Your task to perform on an android device: Open Google Chrome and click the shortcut for Amazon.com Image 0: 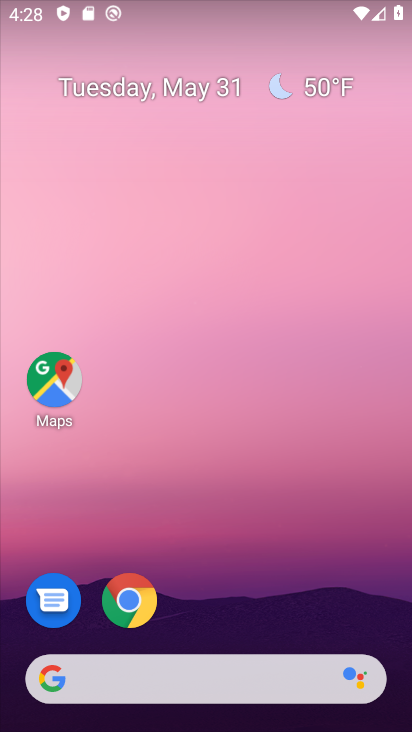
Step 0: click (129, 601)
Your task to perform on an android device: Open Google Chrome and click the shortcut for Amazon.com Image 1: 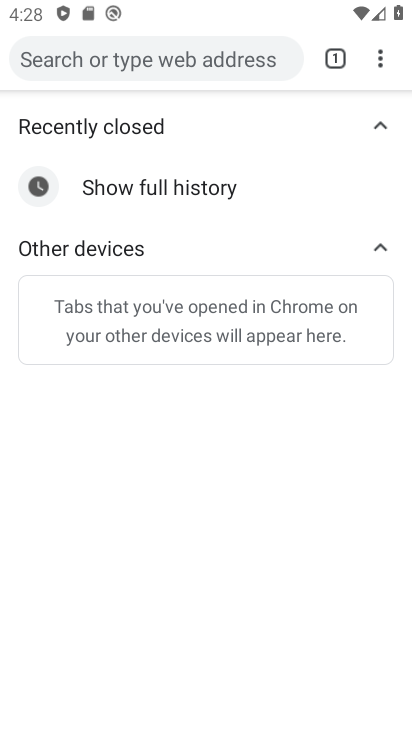
Step 1: click (381, 61)
Your task to perform on an android device: Open Google Chrome and click the shortcut for Amazon.com Image 2: 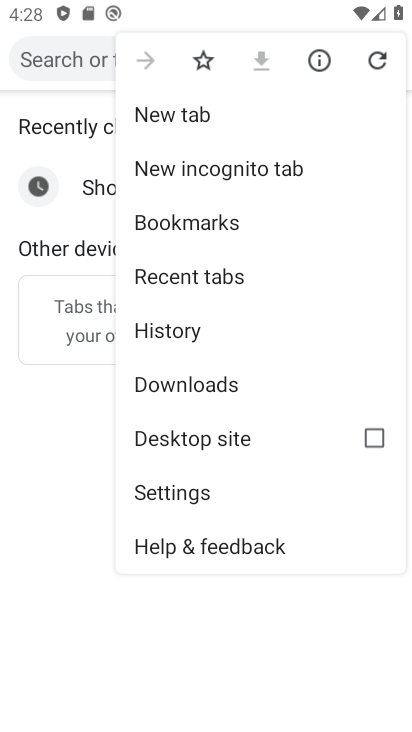
Step 2: click (178, 122)
Your task to perform on an android device: Open Google Chrome and click the shortcut for Amazon.com Image 3: 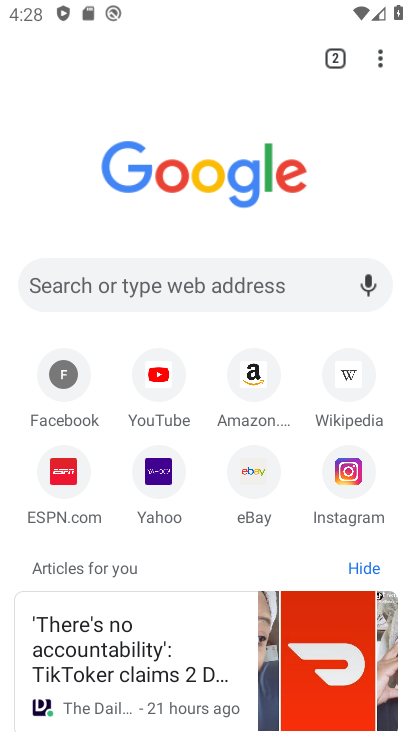
Step 3: click (247, 381)
Your task to perform on an android device: Open Google Chrome and click the shortcut for Amazon.com Image 4: 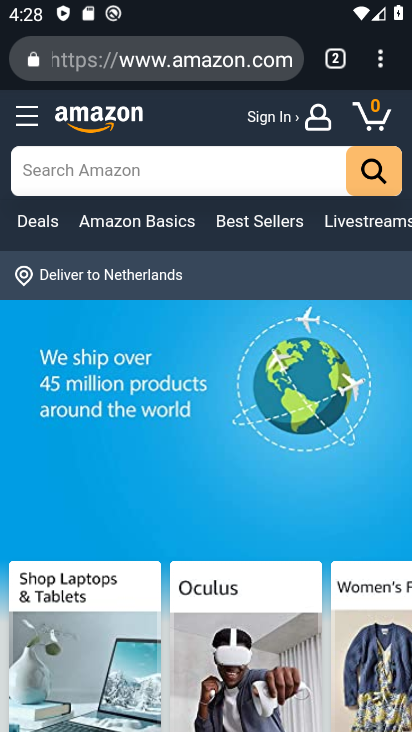
Step 4: click (380, 54)
Your task to perform on an android device: Open Google Chrome and click the shortcut for Amazon.com Image 5: 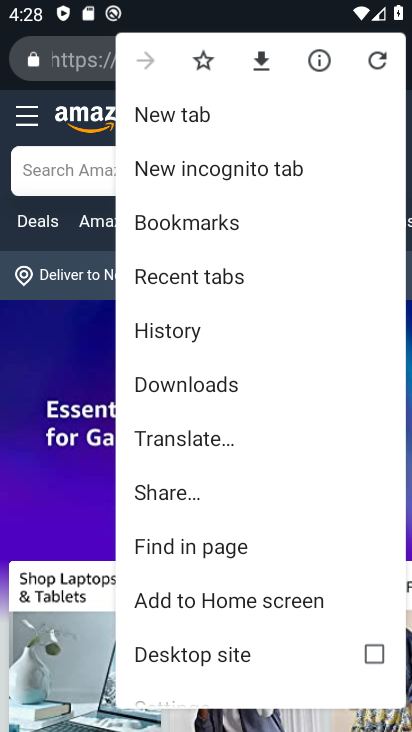
Step 5: click (255, 593)
Your task to perform on an android device: Open Google Chrome and click the shortcut for Amazon.com Image 6: 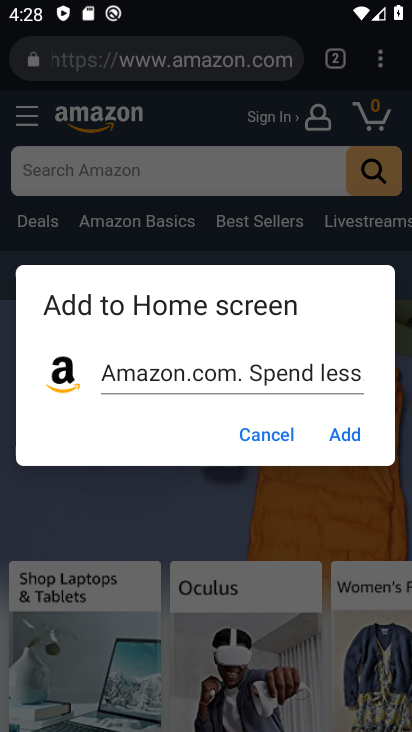
Step 6: click (349, 427)
Your task to perform on an android device: Open Google Chrome and click the shortcut for Amazon.com Image 7: 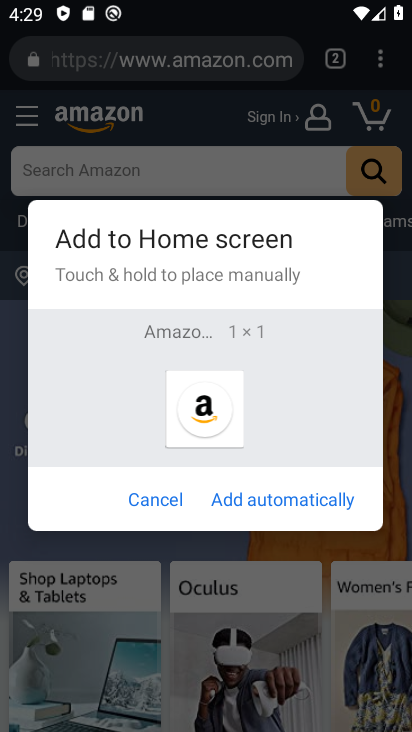
Step 7: click (310, 499)
Your task to perform on an android device: Open Google Chrome and click the shortcut for Amazon.com Image 8: 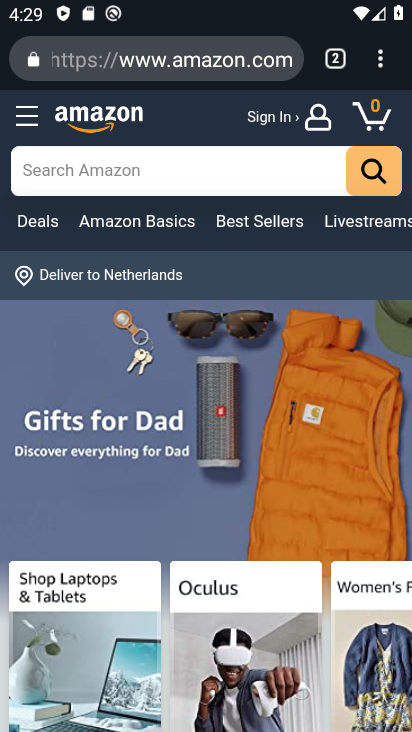
Step 8: task complete